Your task to perform on an android device: Open the calendar and show me this week's events? Image 0: 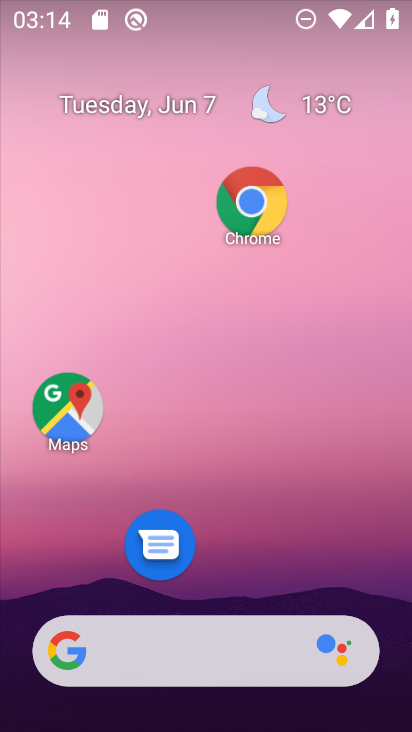
Step 0: drag from (251, 577) to (281, 245)
Your task to perform on an android device: Open the calendar and show me this week's events? Image 1: 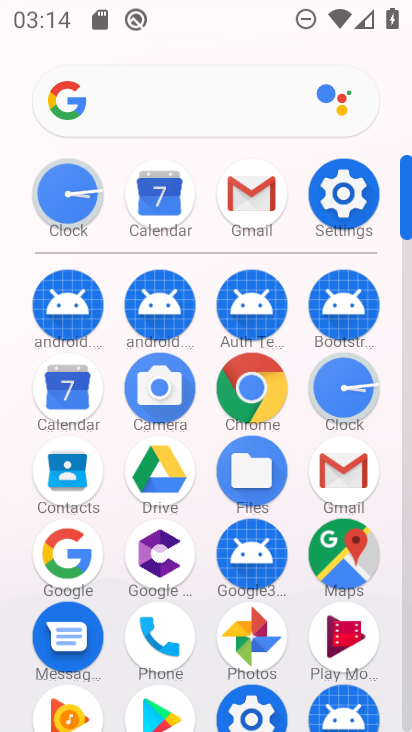
Step 1: click (64, 380)
Your task to perform on an android device: Open the calendar and show me this week's events? Image 2: 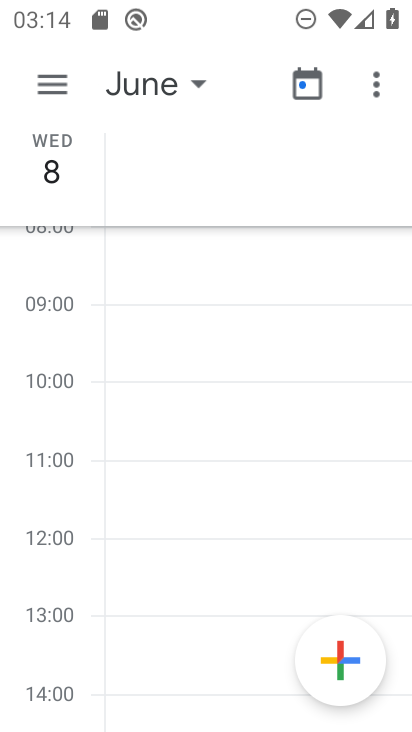
Step 2: click (59, 81)
Your task to perform on an android device: Open the calendar and show me this week's events? Image 3: 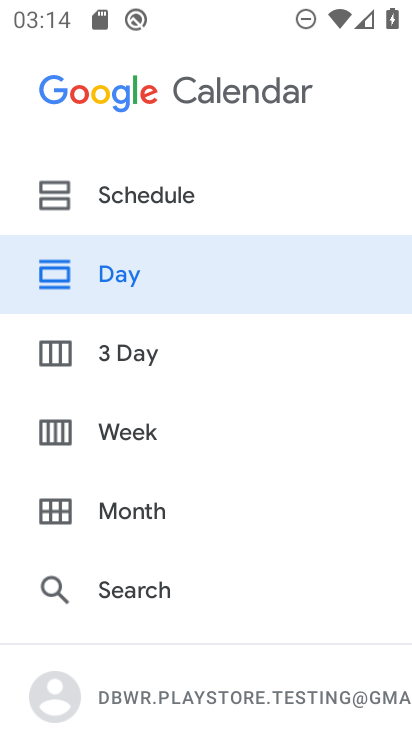
Step 3: click (121, 434)
Your task to perform on an android device: Open the calendar and show me this week's events? Image 4: 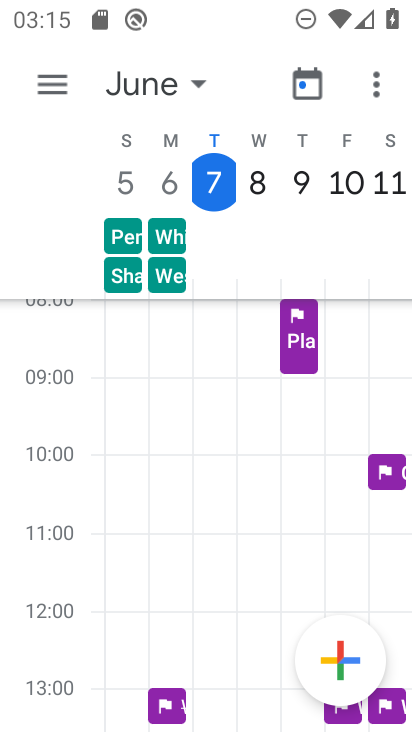
Step 4: task complete